Your task to perform on an android device: change alarm snooze length Image 0: 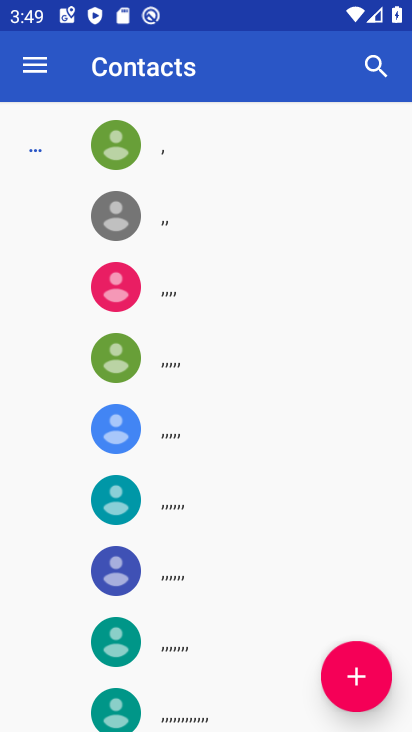
Step 0: press home button
Your task to perform on an android device: change alarm snooze length Image 1: 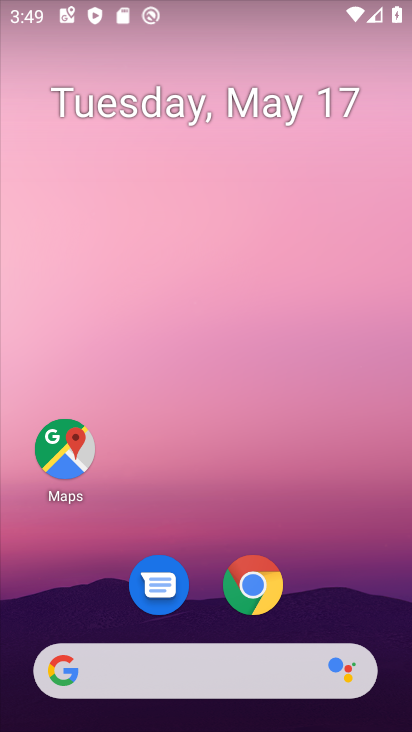
Step 1: drag from (335, 499) to (287, 89)
Your task to perform on an android device: change alarm snooze length Image 2: 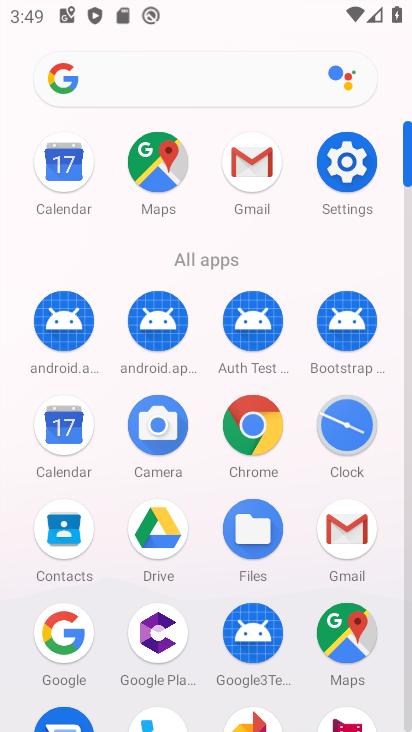
Step 2: click (350, 420)
Your task to perform on an android device: change alarm snooze length Image 3: 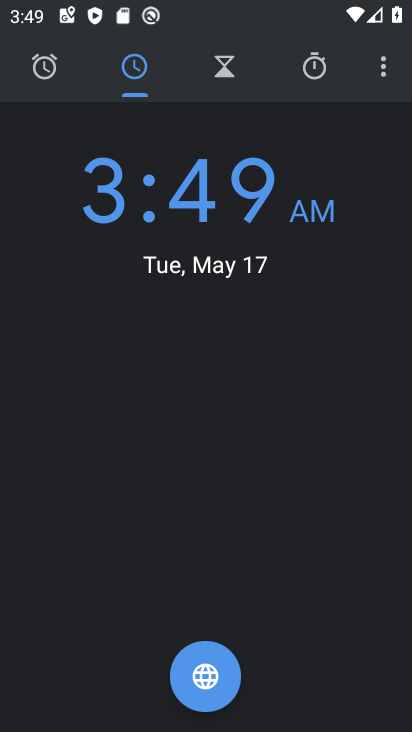
Step 3: click (379, 69)
Your task to perform on an android device: change alarm snooze length Image 4: 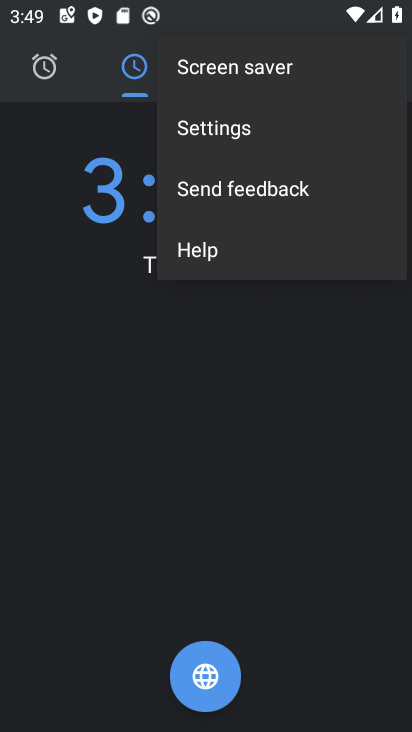
Step 4: click (307, 128)
Your task to perform on an android device: change alarm snooze length Image 5: 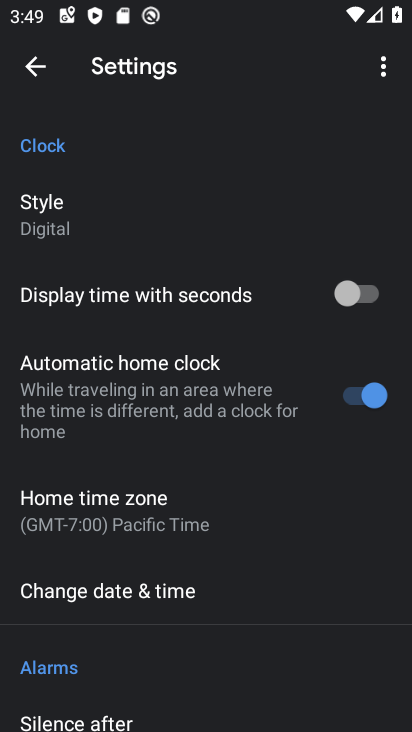
Step 5: drag from (230, 479) to (215, 115)
Your task to perform on an android device: change alarm snooze length Image 6: 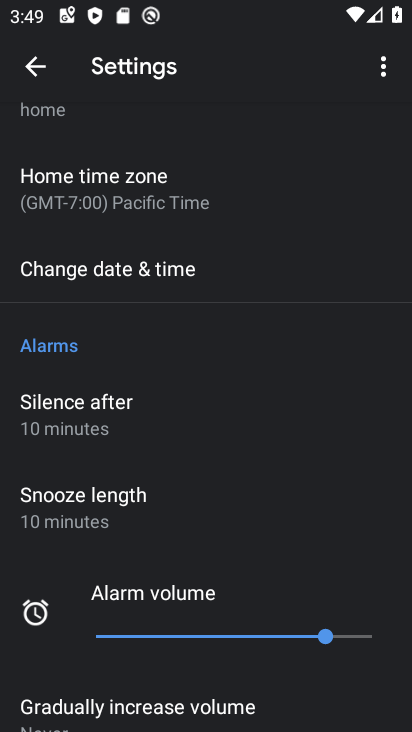
Step 6: click (142, 505)
Your task to perform on an android device: change alarm snooze length Image 7: 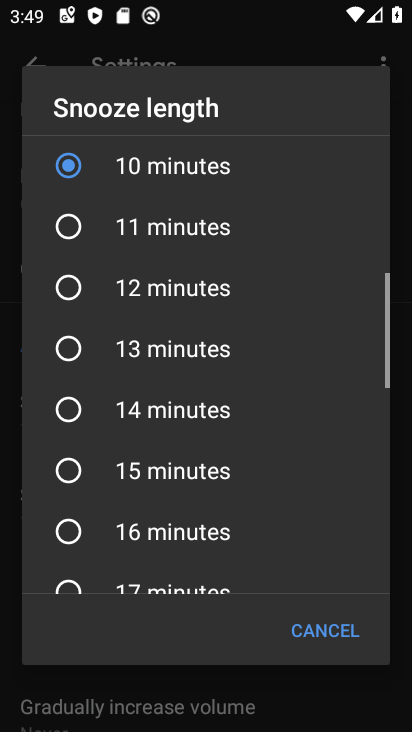
Step 7: click (149, 280)
Your task to perform on an android device: change alarm snooze length Image 8: 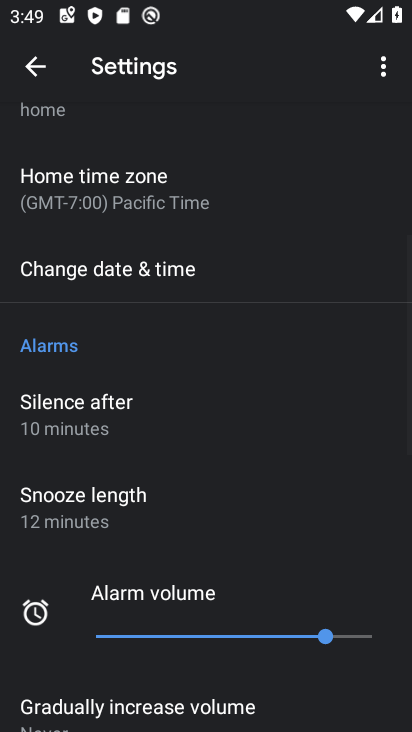
Step 8: task complete